Your task to perform on an android device: turn on improve location accuracy Image 0: 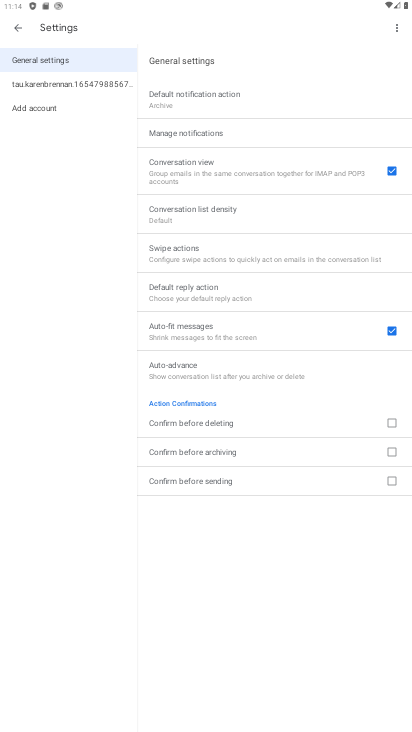
Step 0: press home button
Your task to perform on an android device: turn on improve location accuracy Image 1: 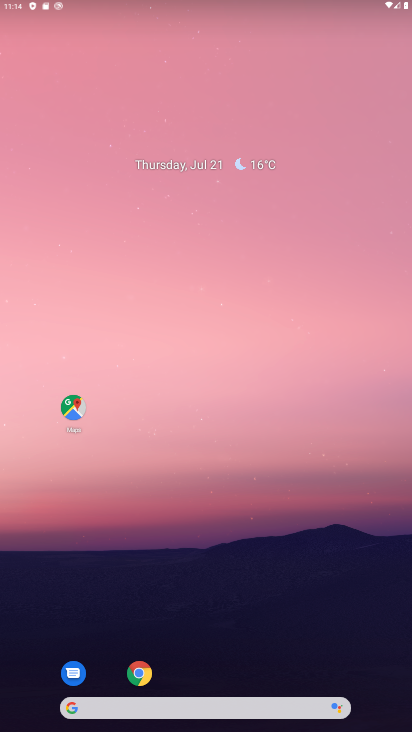
Step 1: drag from (295, 679) to (298, 3)
Your task to perform on an android device: turn on improve location accuracy Image 2: 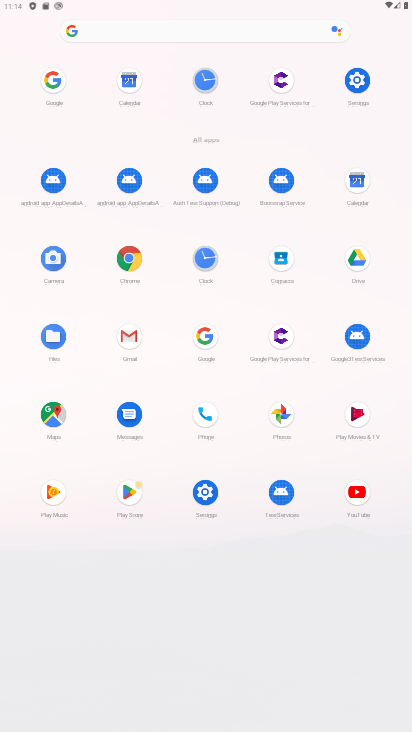
Step 2: click (362, 81)
Your task to perform on an android device: turn on improve location accuracy Image 3: 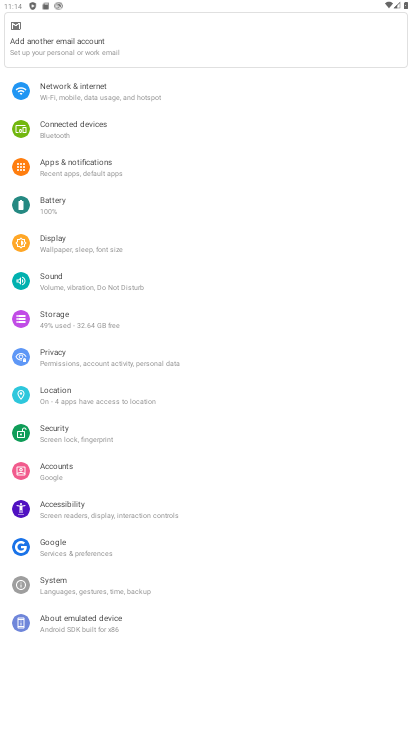
Step 3: click (94, 391)
Your task to perform on an android device: turn on improve location accuracy Image 4: 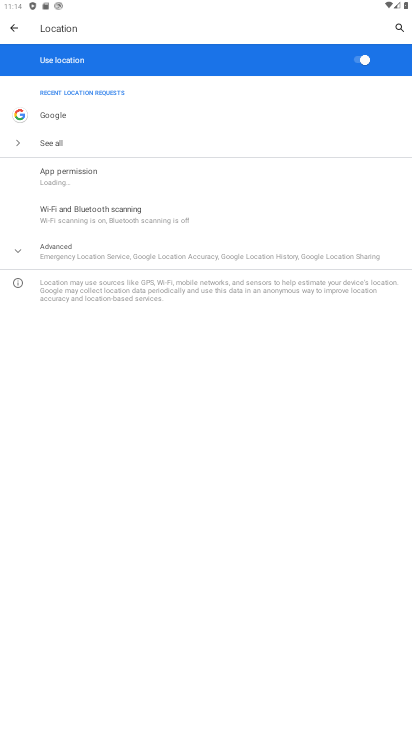
Step 4: click (116, 248)
Your task to perform on an android device: turn on improve location accuracy Image 5: 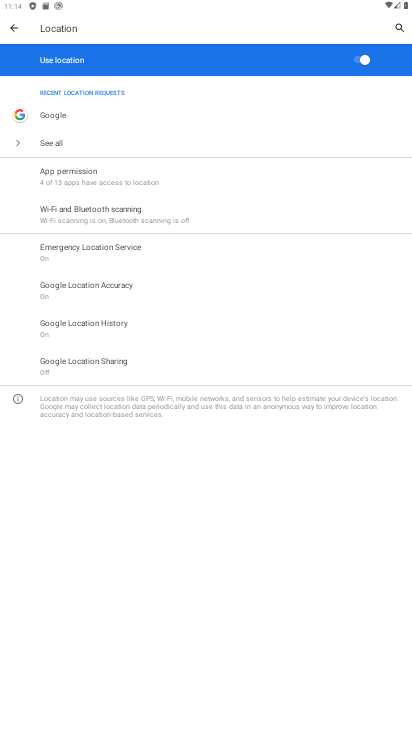
Step 5: click (108, 291)
Your task to perform on an android device: turn on improve location accuracy Image 6: 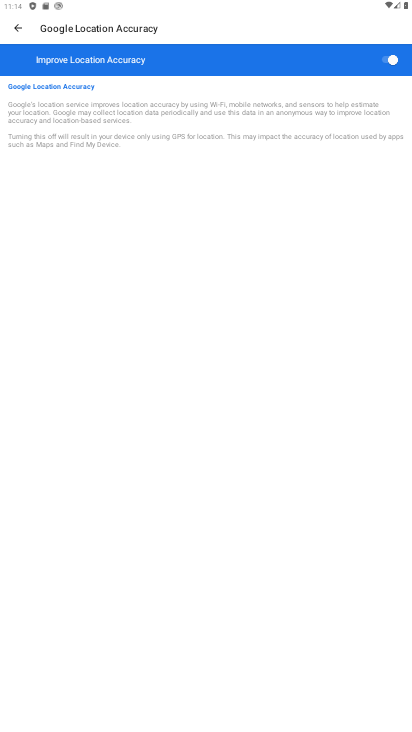
Step 6: task complete